Your task to perform on an android device: Open calendar and show me the second week of next month Image 0: 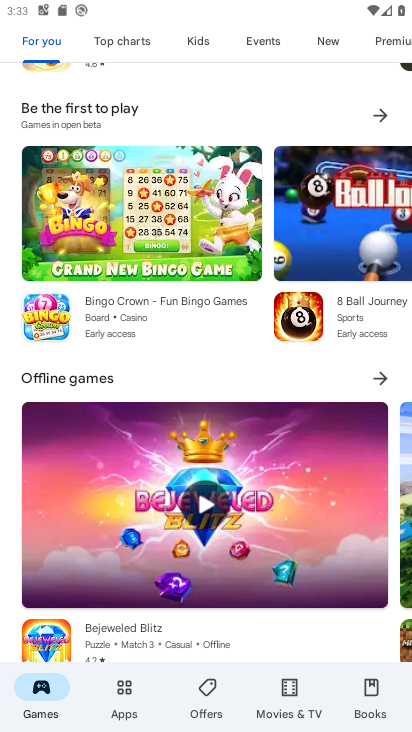
Step 0: press home button
Your task to perform on an android device: Open calendar and show me the second week of next month Image 1: 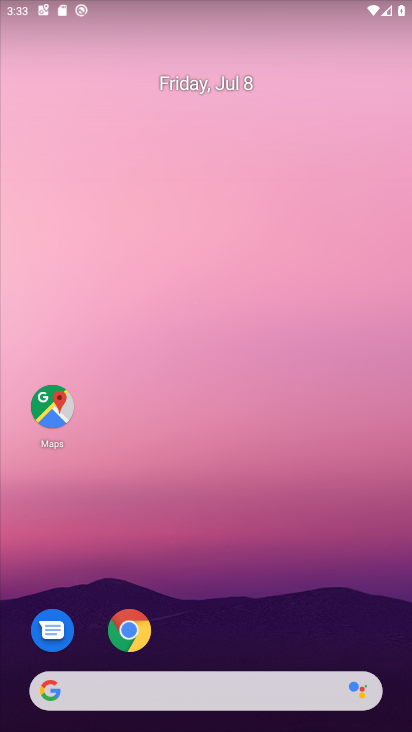
Step 1: drag from (336, 578) to (279, 60)
Your task to perform on an android device: Open calendar and show me the second week of next month Image 2: 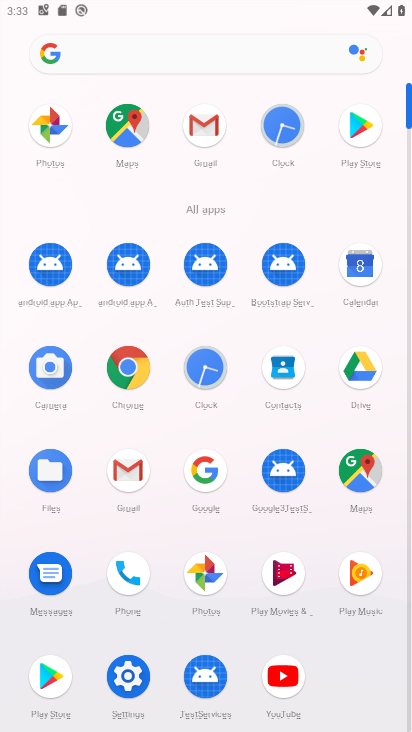
Step 2: click (354, 269)
Your task to perform on an android device: Open calendar and show me the second week of next month Image 3: 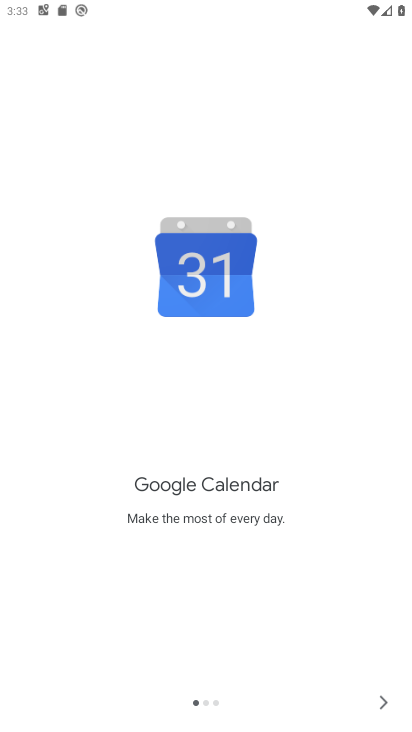
Step 3: click (379, 694)
Your task to perform on an android device: Open calendar and show me the second week of next month Image 4: 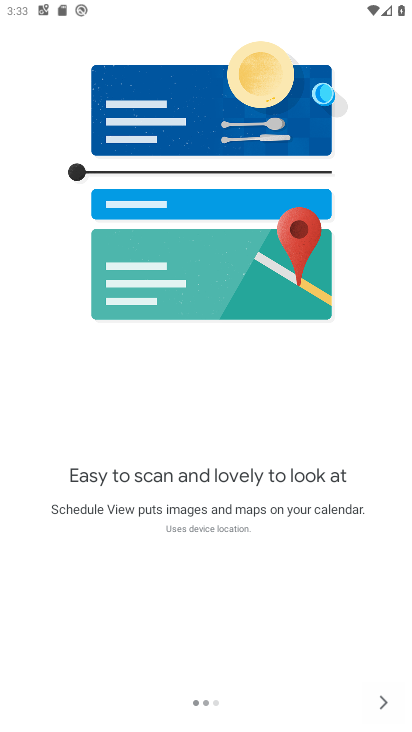
Step 4: click (379, 694)
Your task to perform on an android device: Open calendar and show me the second week of next month Image 5: 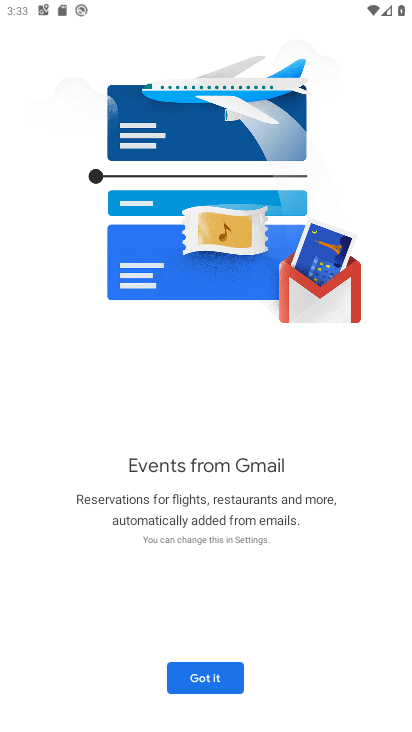
Step 5: click (216, 680)
Your task to perform on an android device: Open calendar and show me the second week of next month Image 6: 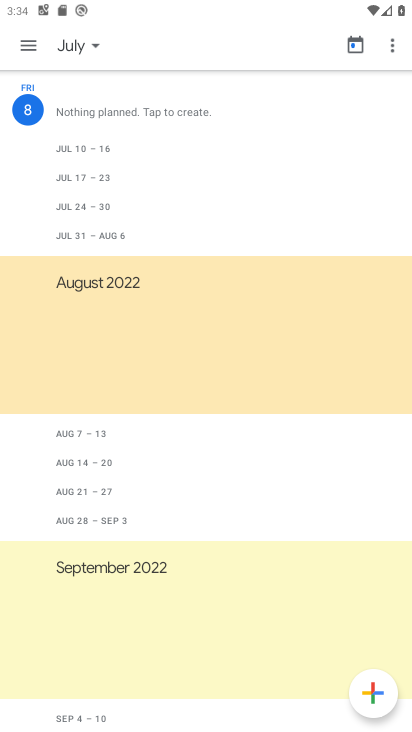
Step 6: click (66, 43)
Your task to perform on an android device: Open calendar and show me the second week of next month Image 7: 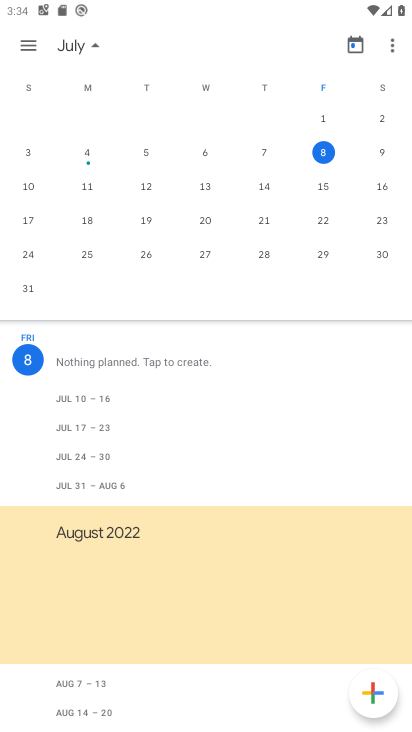
Step 7: drag from (385, 227) to (53, 244)
Your task to perform on an android device: Open calendar and show me the second week of next month Image 8: 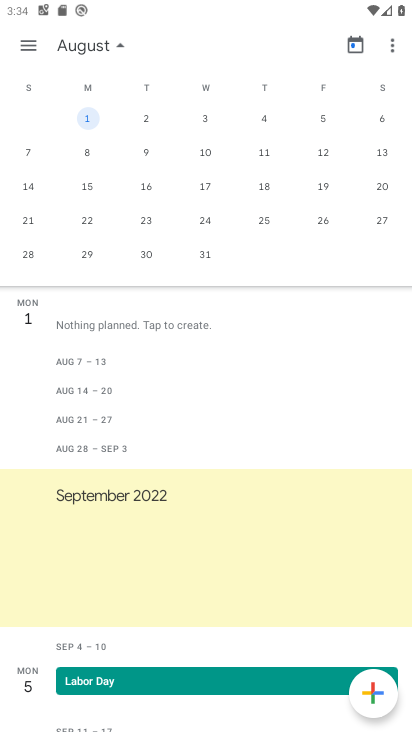
Step 8: drag from (333, 241) to (248, 225)
Your task to perform on an android device: Open calendar and show me the second week of next month Image 9: 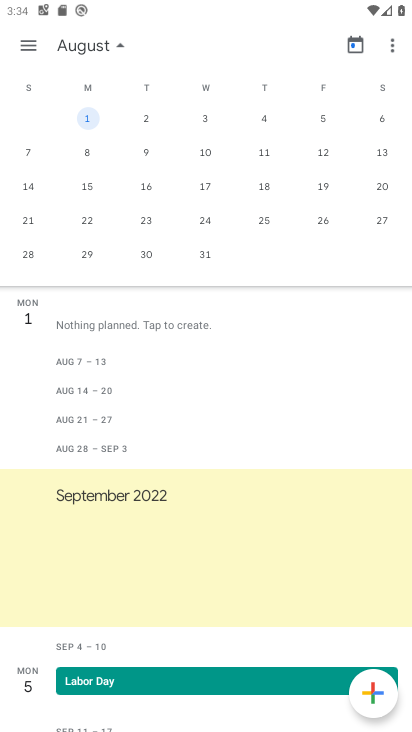
Step 9: click (28, 156)
Your task to perform on an android device: Open calendar and show me the second week of next month Image 10: 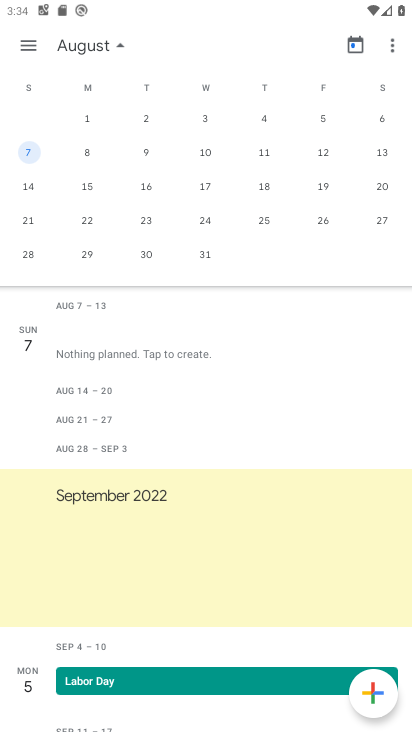
Step 10: click (29, 41)
Your task to perform on an android device: Open calendar and show me the second week of next month Image 11: 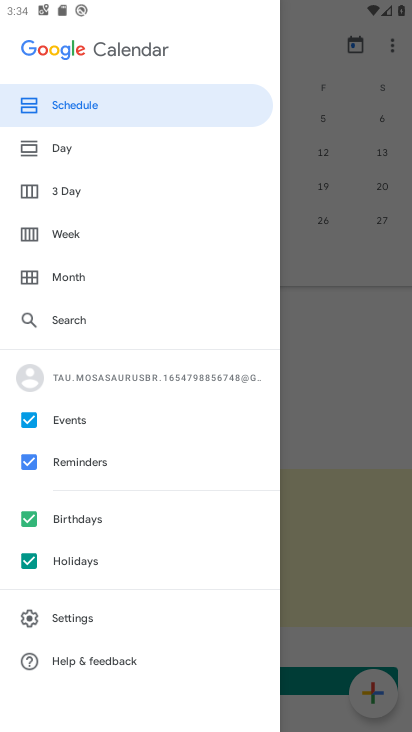
Step 11: click (70, 232)
Your task to perform on an android device: Open calendar and show me the second week of next month Image 12: 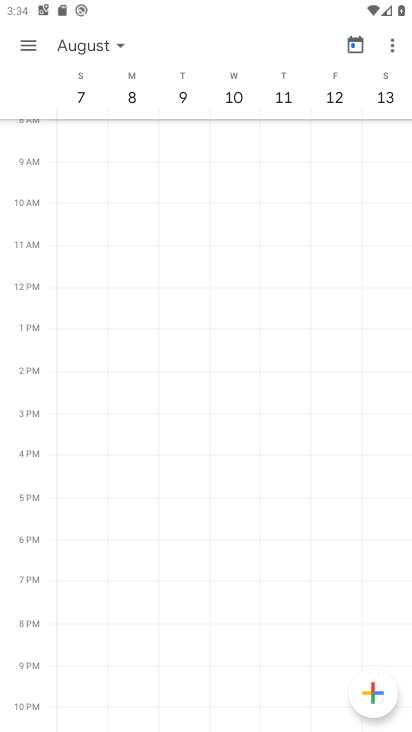
Step 12: task complete